Your task to perform on an android device: Do I have any events tomorrow? Image 0: 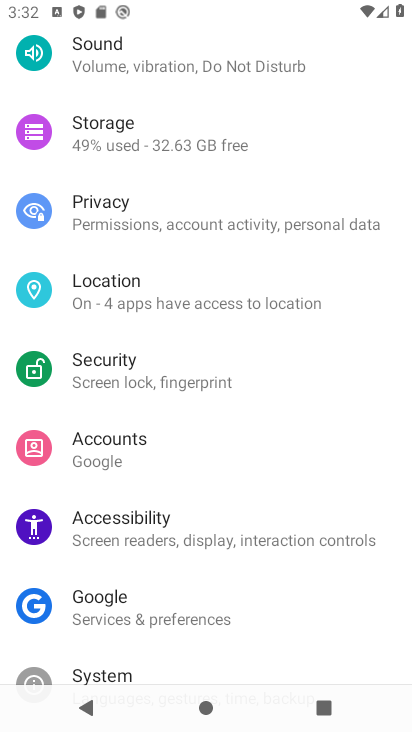
Step 0: press home button
Your task to perform on an android device: Do I have any events tomorrow? Image 1: 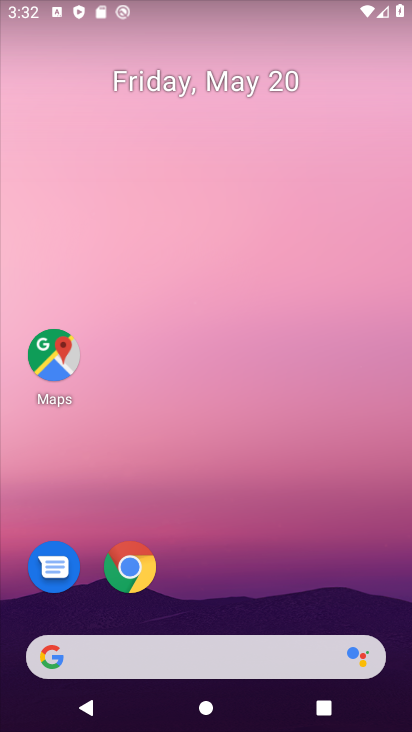
Step 1: drag from (275, 598) to (230, 13)
Your task to perform on an android device: Do I have any events tomorrow? Image 2: 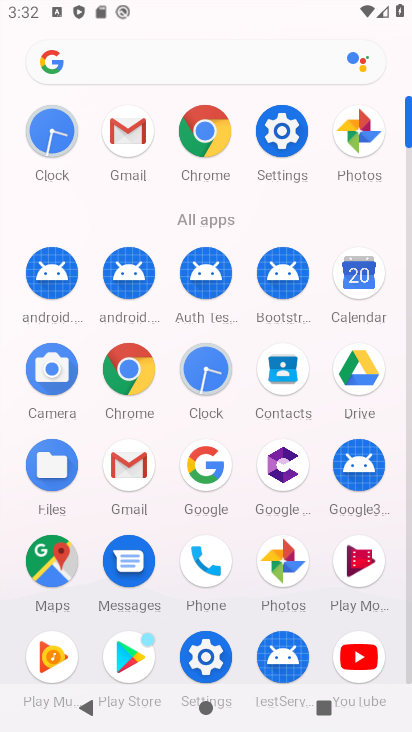
Step 2: click (370, 276)
Your task to perform on an android device: Do I have any events tomorrow? Image 3: 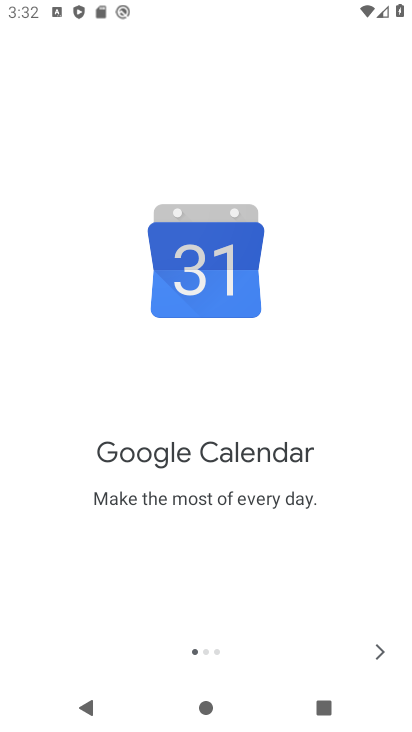
Step 3: click (379, 656)
Your task to perform on an android device: Do I have any events tomorrow? Image 4: 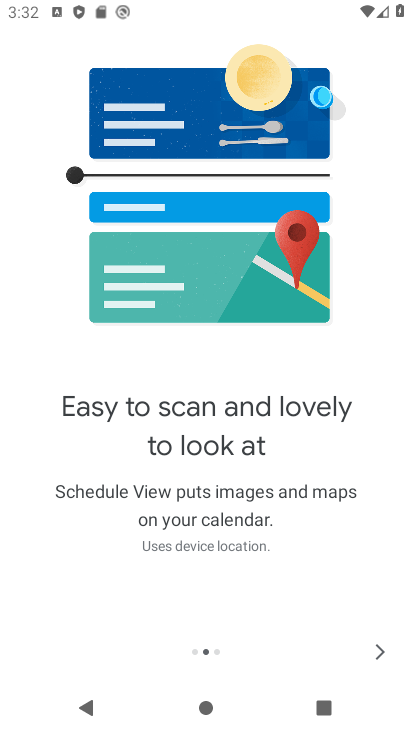
Step 4: click (377, 653)
Your task to perform on an android device: Do I have any events tomorrow? Image 5: 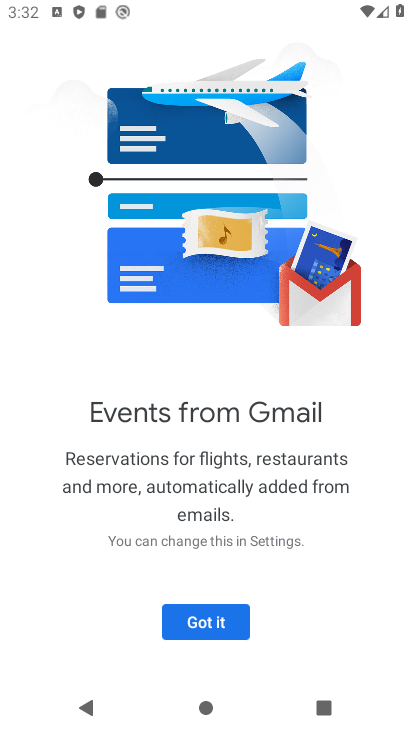
Step 5: click (187, 625)
Your task to perform on an android device: Do I have any events tomorrow? Image 6: 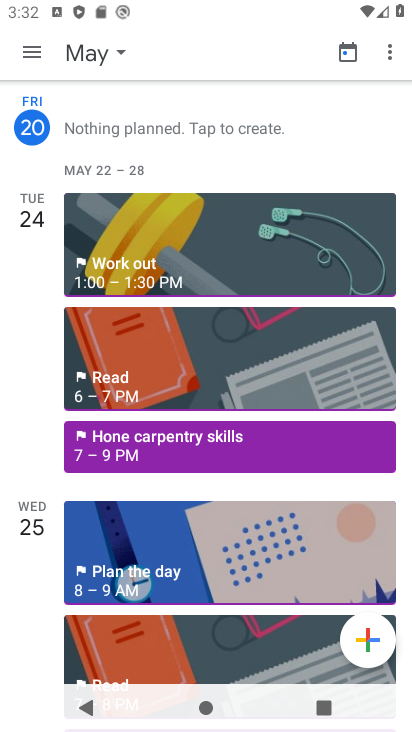
Step 6: click (97, 54)
Your task to perform on an android device: Do I have any events tomorrow? Image 7: 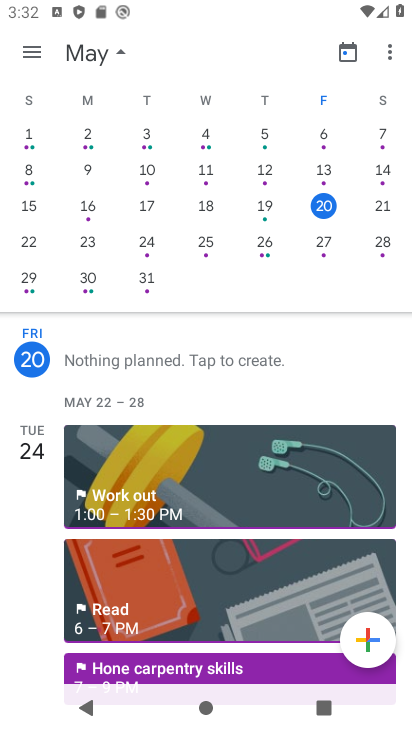
Step 7: click (379, 214)
Your task to perform on an android device: Do I have any events tomorrow? Image 8: 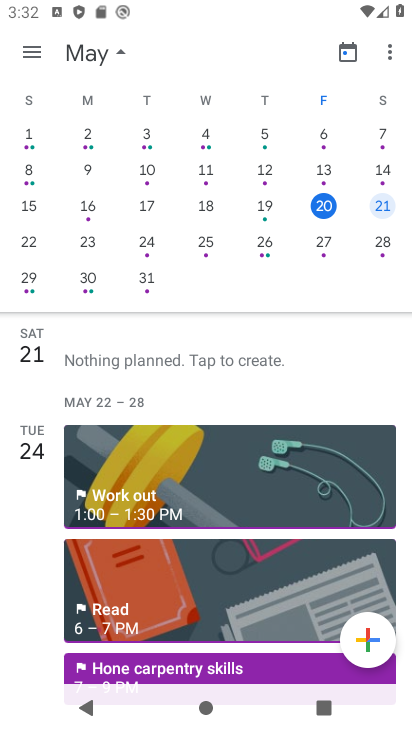
Step 8: task complete